Your task to perform on an android device: change keyboard looks Image 0: 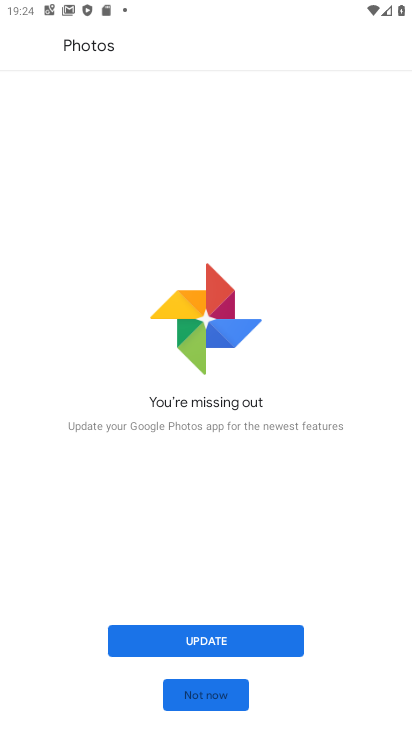
Step 0: press home button
Your task to perform on an android device: change keyboard looks Image 1: 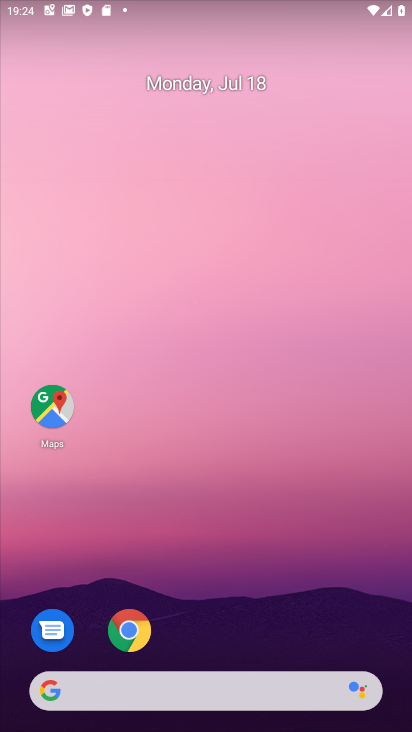
Step 1: drag from (296, 523) to (233, 10)
Your task to perform on an android device: change keyboard looks Image 2: 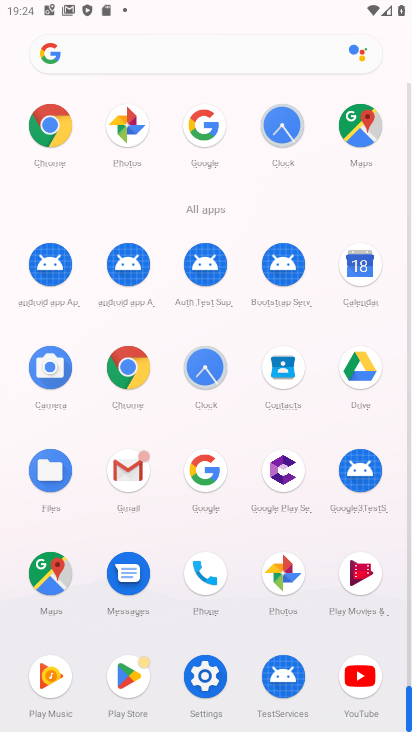
Step 2: click (211, 685)
Your task to perform on an android device: change keyboard looks Image 3: 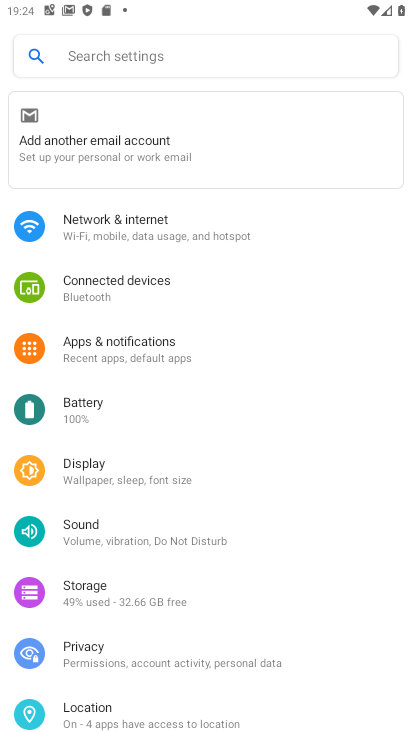
Step 3: drag from (242, 164) to (241, 47)
Your task to perform on an android device: change keyboard looks Image 4: 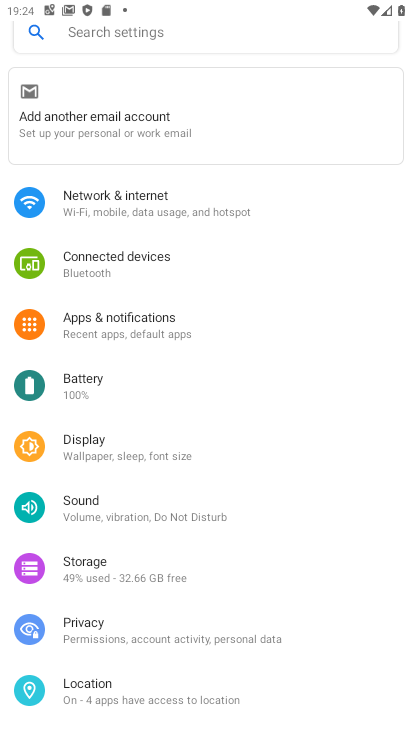
Step 4: drag from (142, 672) to (161, 230)
Your task to perform on an android device: change keyboard looks Image 5: 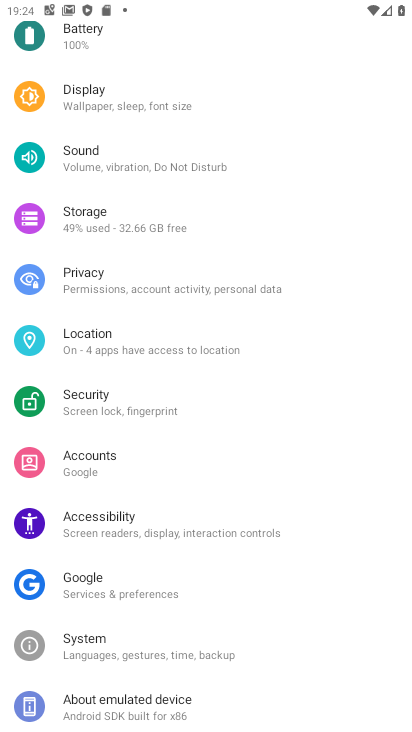
Step 5: click (97, 638)
Your task to perform on an android device: change keyboard looks Image 6: 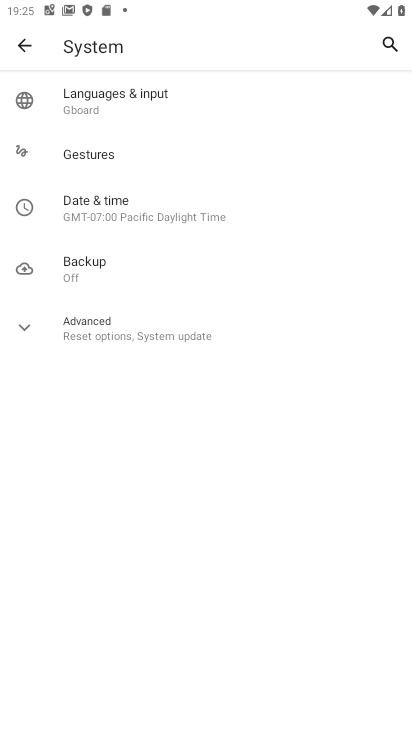
Step 6: click (89, 105)
Your task to perform on an android device: change keyboard looks Image 7: 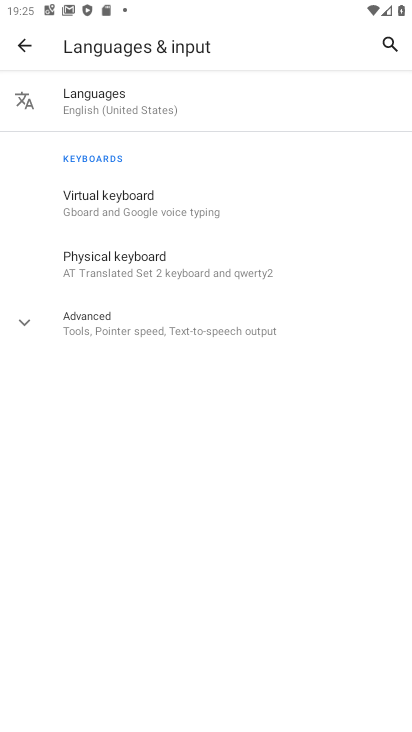
Step 7: click (91, 200)
Your task to perform on an android device: change keyboard looks Image 8: 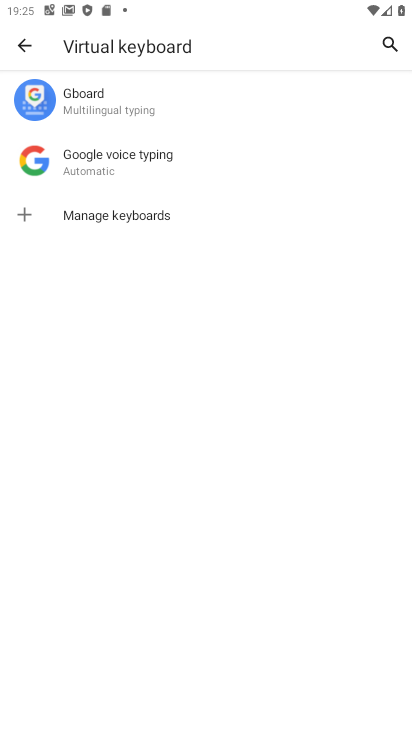
Step 8: click (85, 107)
Your task to perform on an android device: change keyboard looks Image 9: 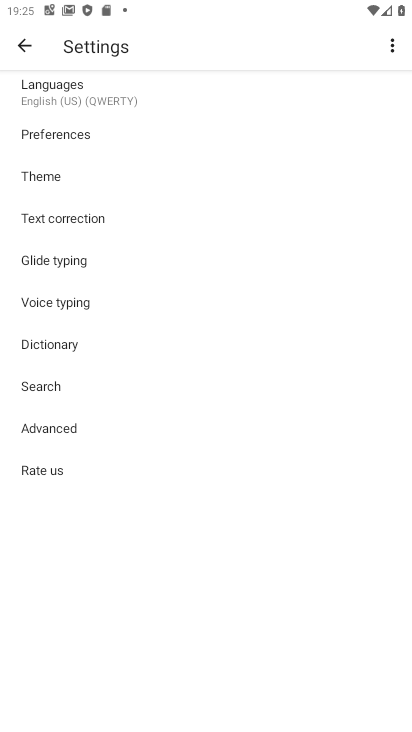
Step 9: click (37, 174)
Your task to perform on an android device: change keyboard looks Image 10: 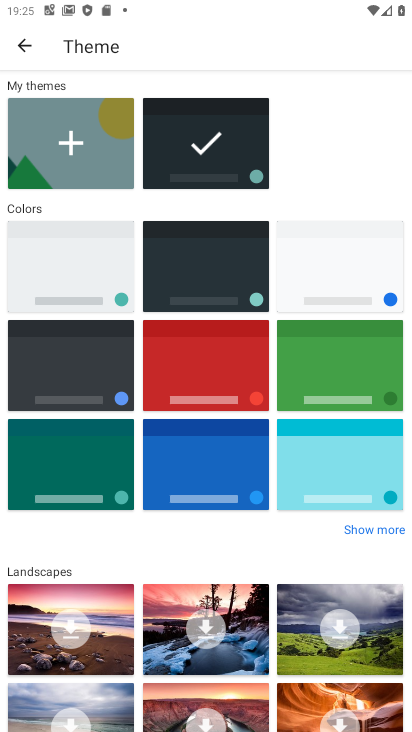
Step 10: click (187, 284)
Your task to perform on an android device: change keyboard looks Image 11: 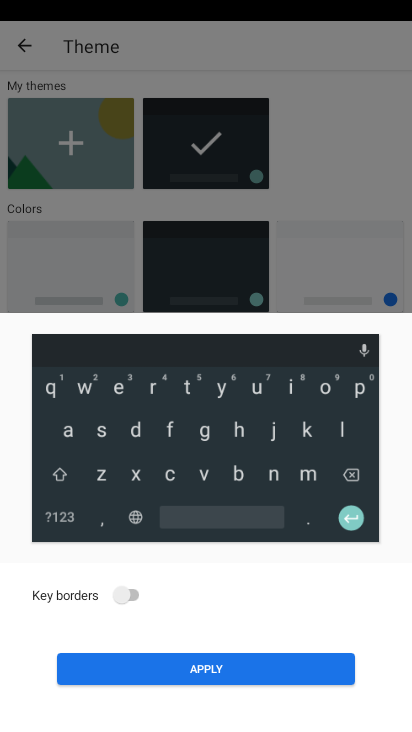
Step 11: click (200, 669)
Your task to perform on an android device: change keyboard looks Image 12: 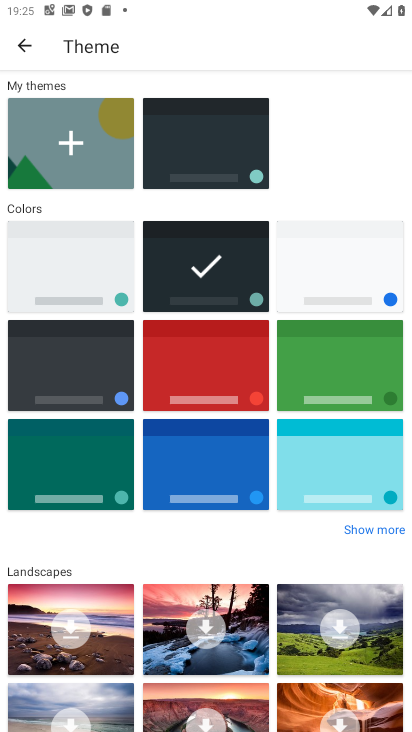
Step 12: click (204, 276)
Your task to perform on an android device: change keyboard looks Image 13: 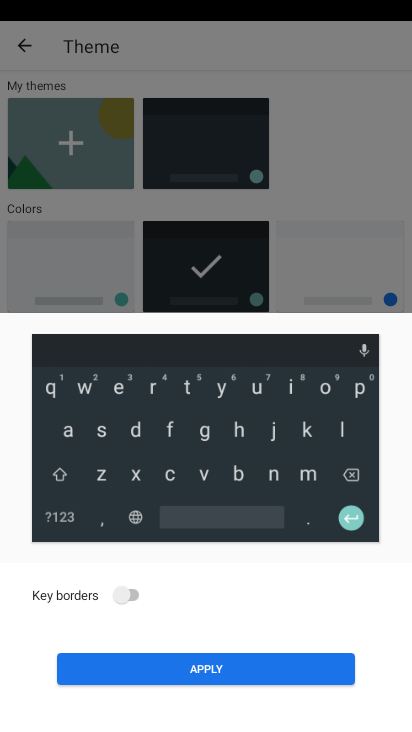
Step 13: click (180, 684)
Your task to perform on an android device: change keyboard looks Image 14: 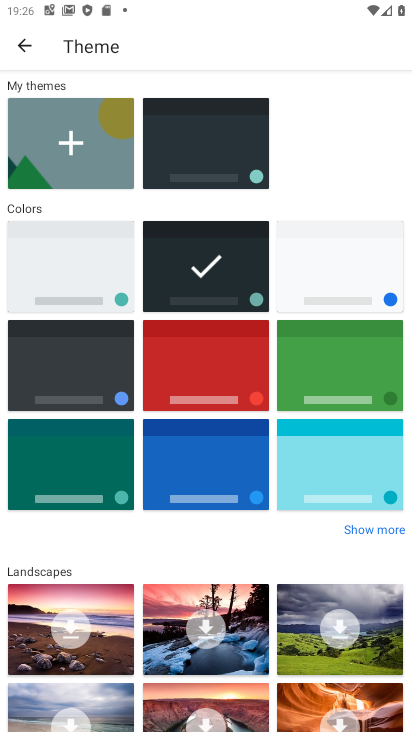
Step 14: task complete